Your task to perform on an android device: toggle notifications settings in the gmail app Image 0: 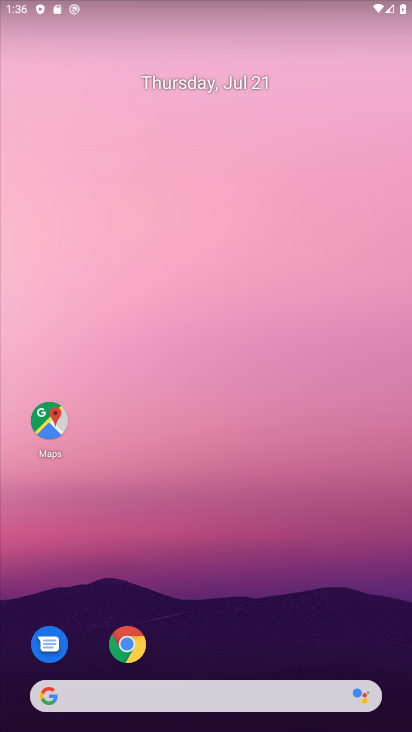
Step 0: drag from (274, 619) to (230, 41)
Your task to perform on an android device: toggle notifications settings in the gmail app Image 1: 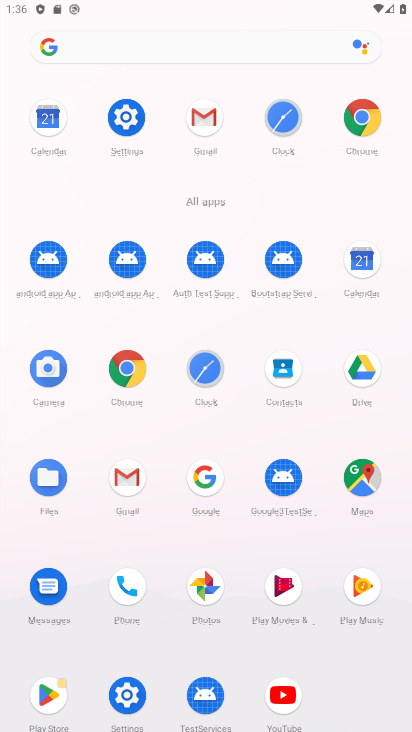
Step 1: click (136, 479)
Your task to perform on an android device: toggle notifications settings in the gmail app Image 2: 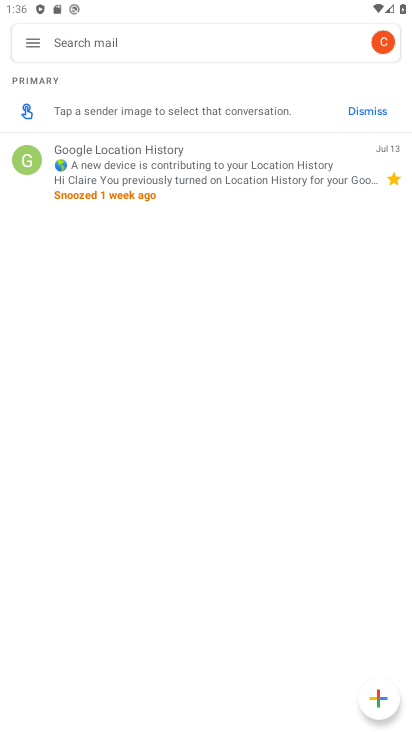
Step 2: click (33, 49)
Your task to perform on an android device: toggle notifications settings in the gmail app Image 3: 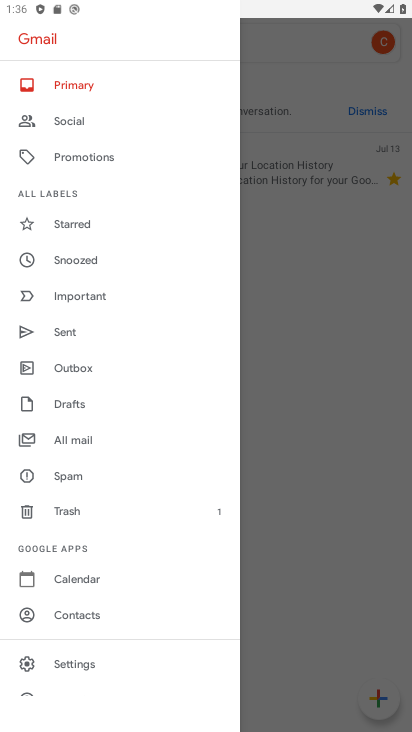
Step 3: click (80, 666)
Your task to perform on an android device: toggle notifications settings in the gmail app Image 4: 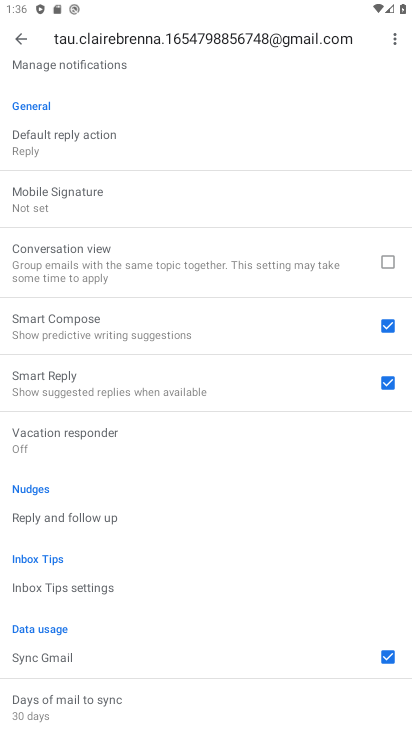
Step 4: click (90, 74)
Your task to perform on an android device: toggle notifications settings in the gmail app Image 5: 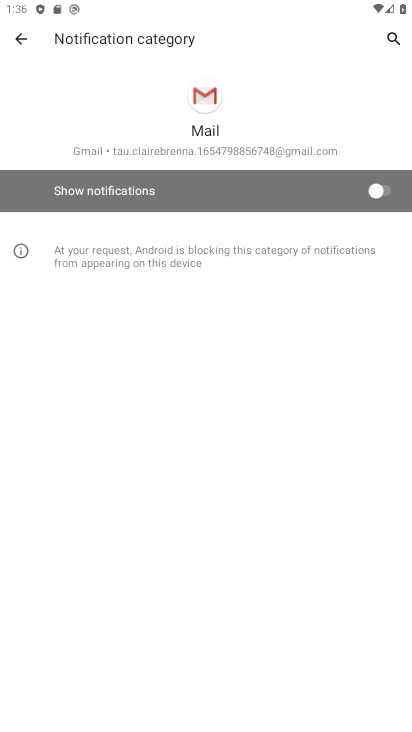
Step 5: click (384, 191)
Your task to perform on an android device: toggle notifications settings in the gmail app Image 6: 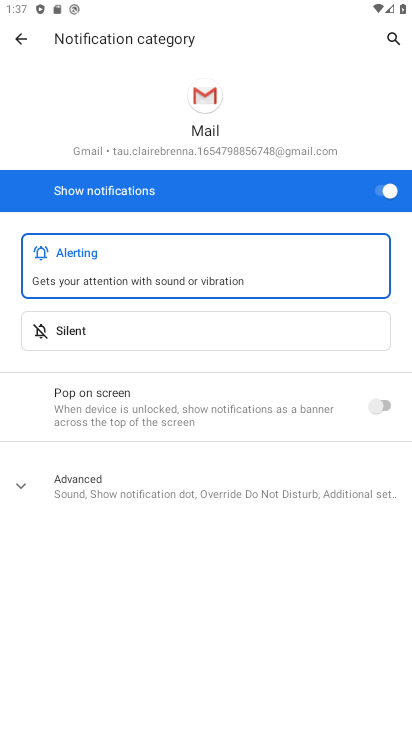
Step 6: task complete